Your task to perform on an android device: turn on data saver in the chrome app Image 0: 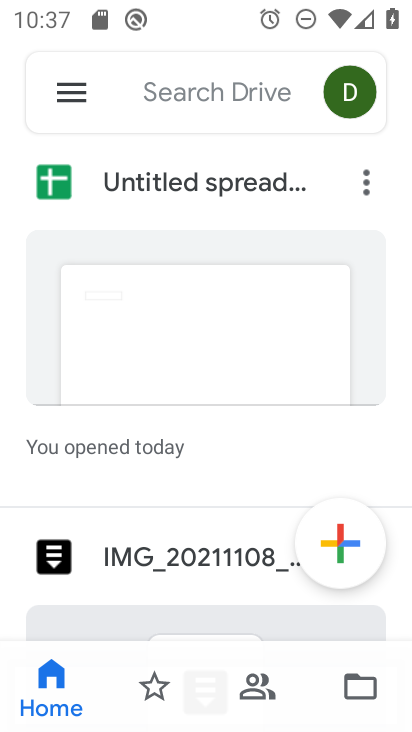
Step 0: press home button
Your task to perform on an android device: turn on data saver in the chrome app Image 1: 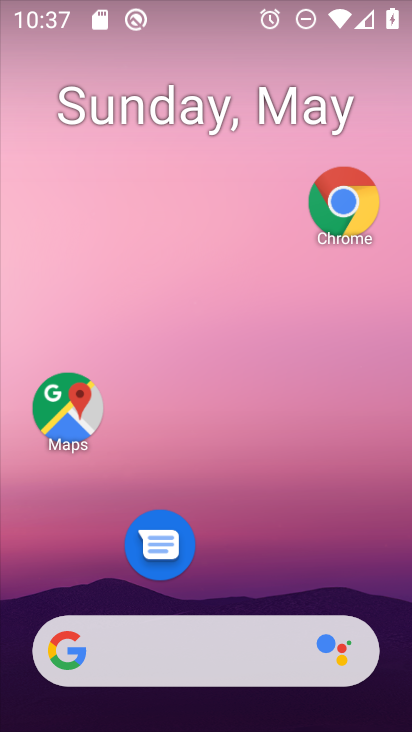
Step 1: click (338, 201)
Your task to perform on an android device: turn on data saver in the chrome app Image 2: 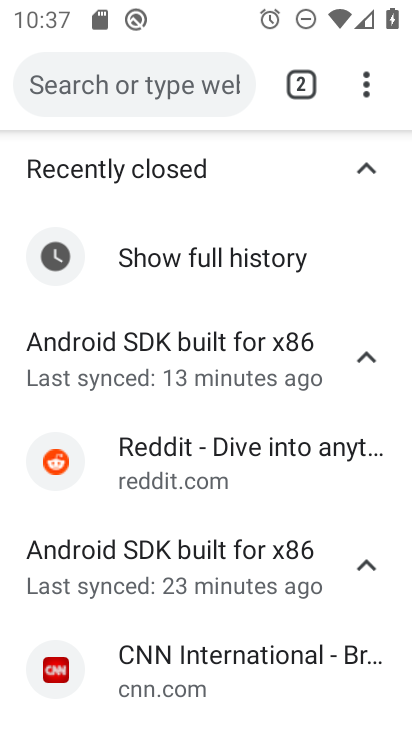
Step 2: click (356, 94)
Your task to perform on an android device: turn on data saver in the chrome app Image 3: 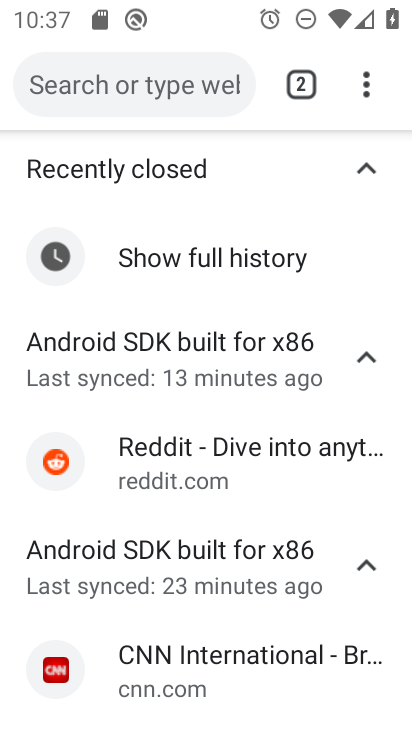
Step 3: click (357, 96)
Your task to perform on an android device: turn on data saver in the chrome app Image 4: 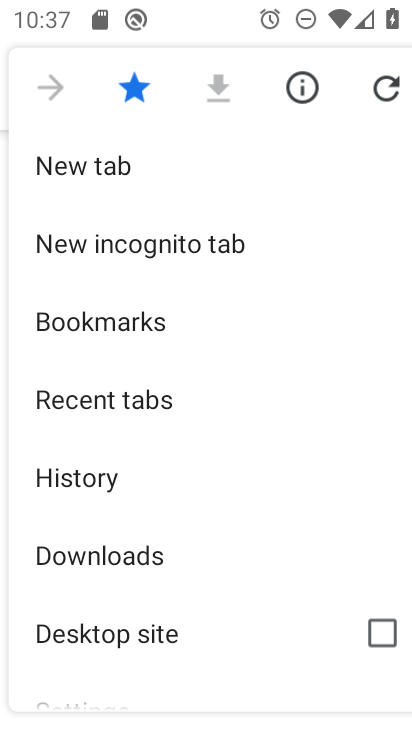
Step 4: drag from (157, 544) to (168, 203)
Your task to perform on an android device: turn on data saver in the chrome app Image 5: 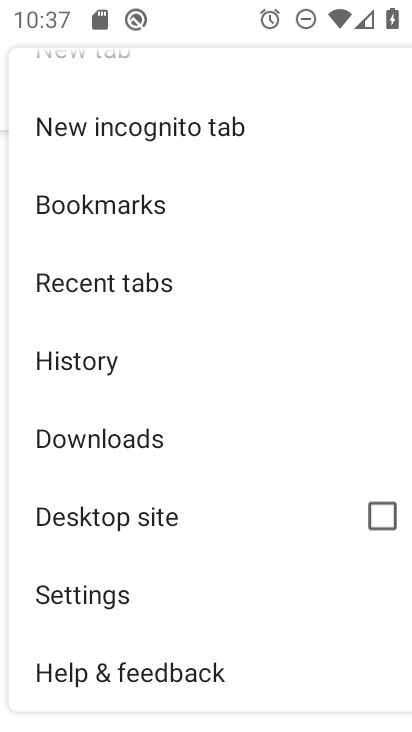
Step 5: click (71, 593)
Your task to perform on an android device: turn on data saver in the chrome app Image 6: 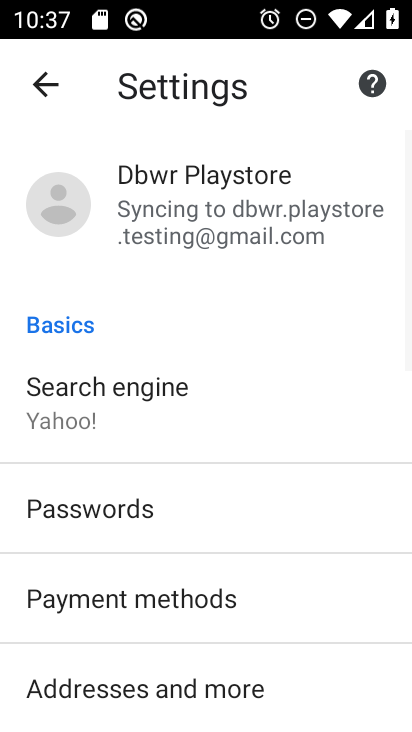
Step 6: drag from (197, 516) to (197, 175)
Your task to perform on an android device: turn on data saver in the chrome app Image 7: 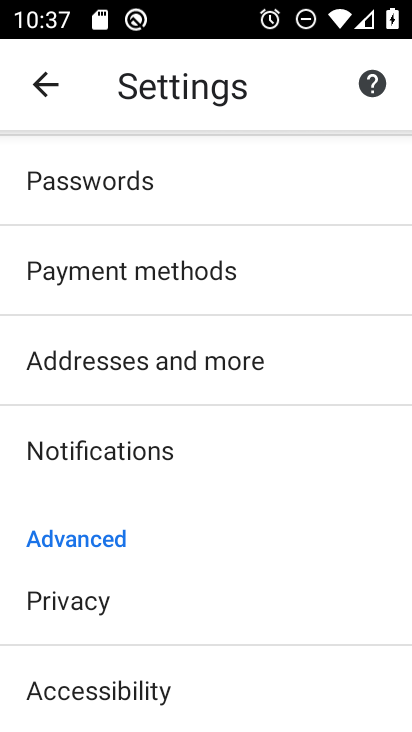
Step 7: drag from (212, 597) to (253, 297)
Your task to perform on an android device: turn on data saver in the chrome app Image 8: 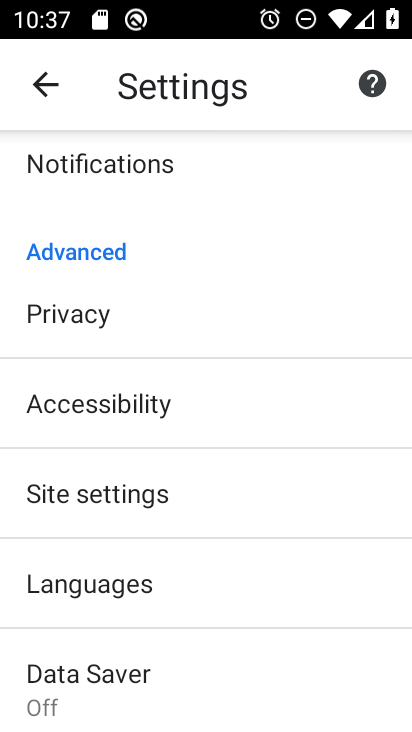
Step 8: click (162, 689)
Your task to perform on an android device: turn on data saver in the chrome app Image 9: 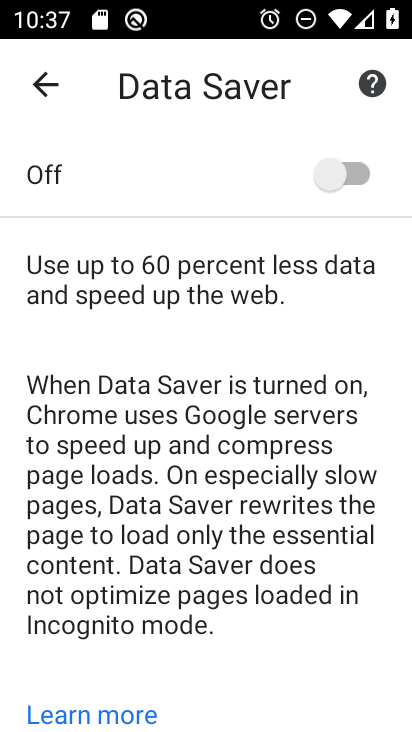
Step 9: click (336, 176)
Your task to perform on an android device: turn on data saver in the chrome app Image 10: 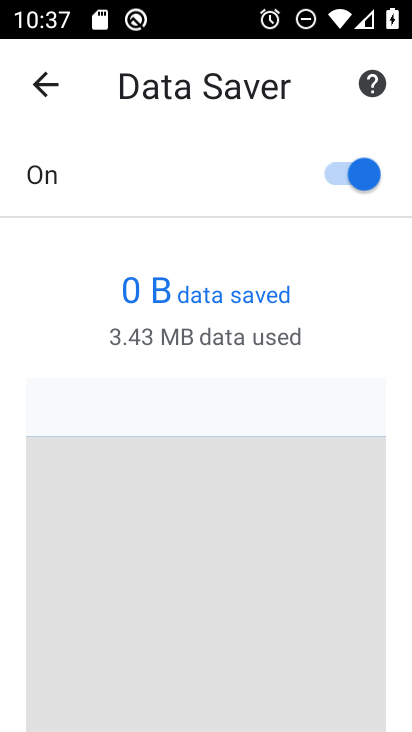
Step 10: task complete